Your task to perform on an android device: choose inbox layout in the gmail app Image 0: 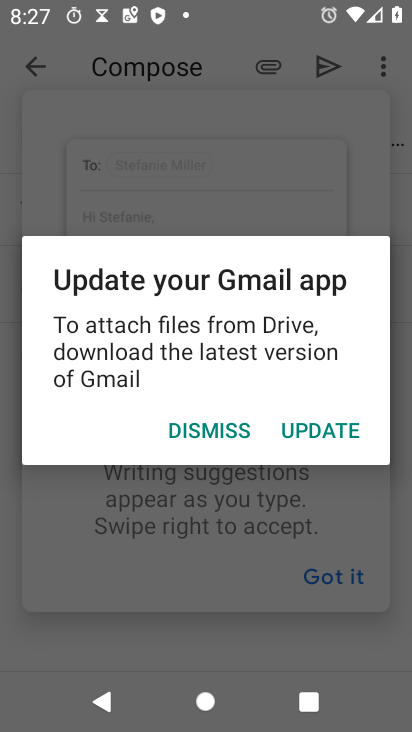
Step 0: press home button
Your task to perform on an android device: choose inbox layout in the gmail app Image 1: 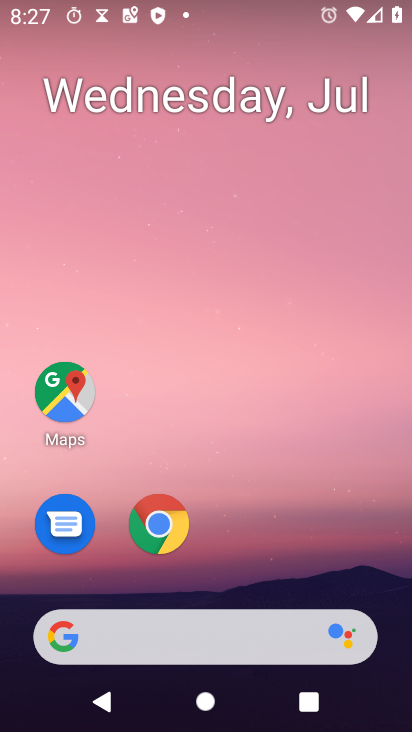
Step 1: drag from (192, 631) to (294, 125)
Your task to perform on an android device: choose inbox layout in the gmail app Image 2: 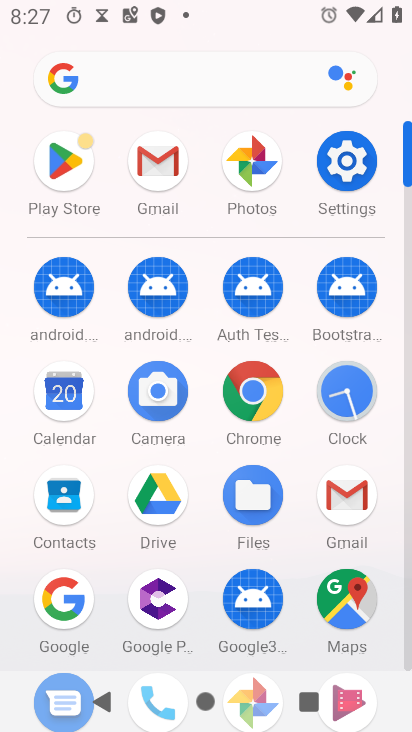
Step 2: click (160, 179)
Your task to perform on an android device: choose inbox layout in the gmail app Image 3: 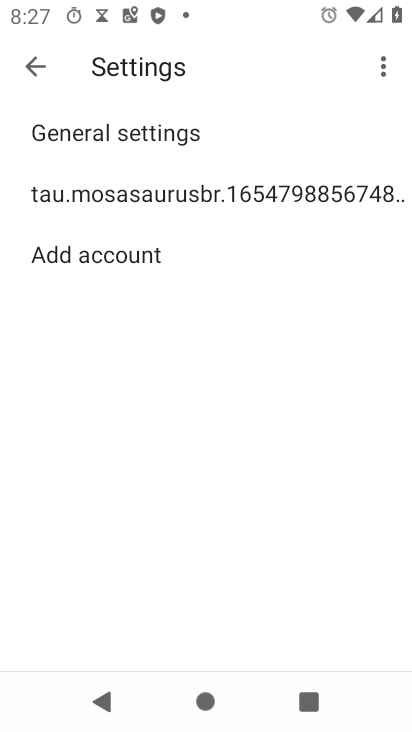
Step 3: click (161, 189)
Your task to perform on an android device: choose inbox layout in the gmail app Image 4: 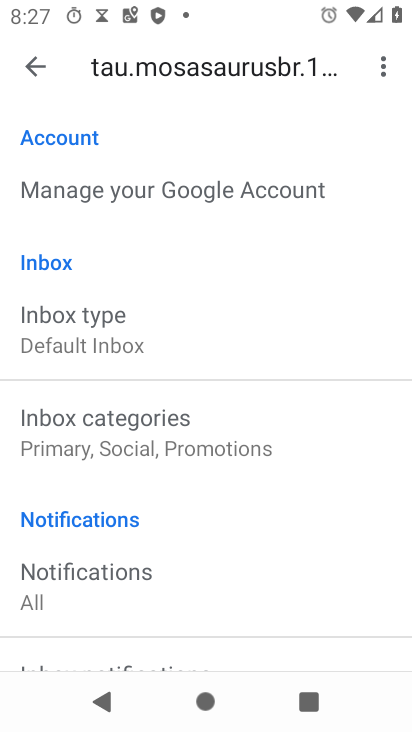
Step 4: click (60, 319)
Your task to perform on an android device: choose inbox layout in the gmail app Image 5: 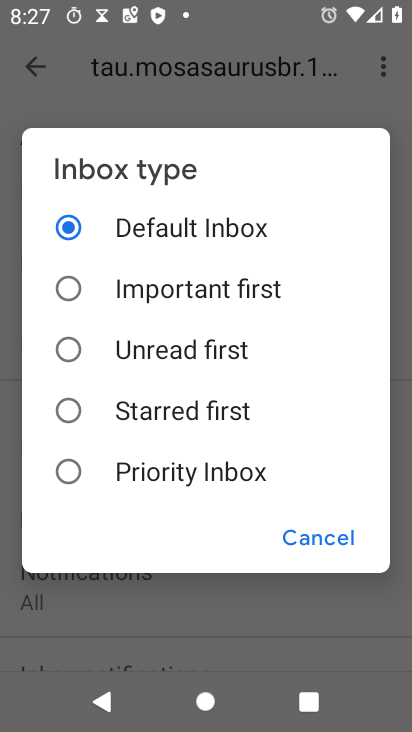
Step 5: click (74, 469)
Your task to perform on an android device: choose inbox layout in the gmail app Image 6: 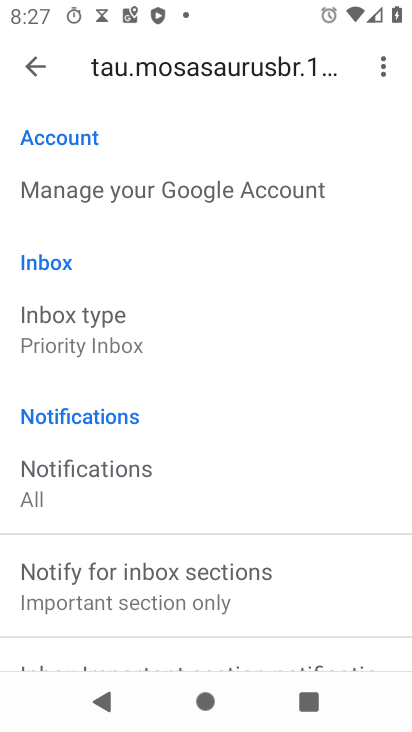
Step 6: task complete